Your task to perform on an android device: set the timer Image 0: 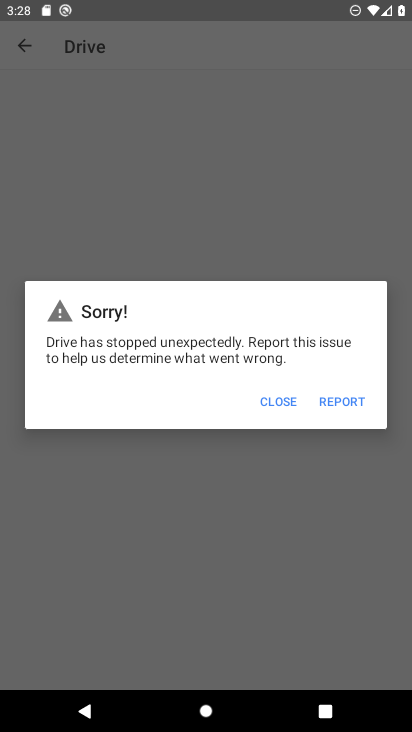
Step 0: click (175, 503)
Your task to perform on an android device: set the timer Image 1: 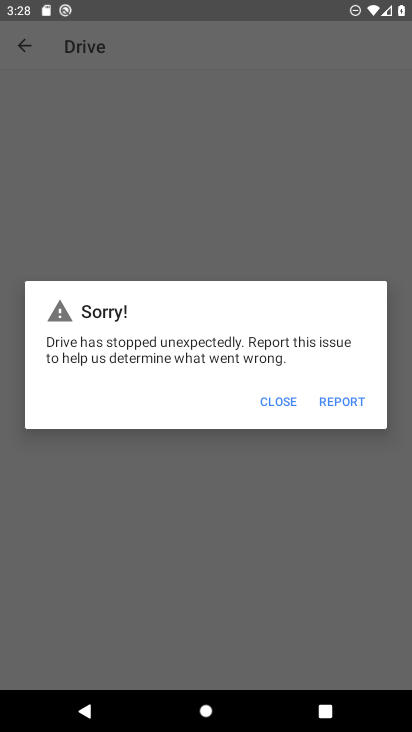
Step 1: press home button
Your task to perform on an android device: set the timer Image 2: 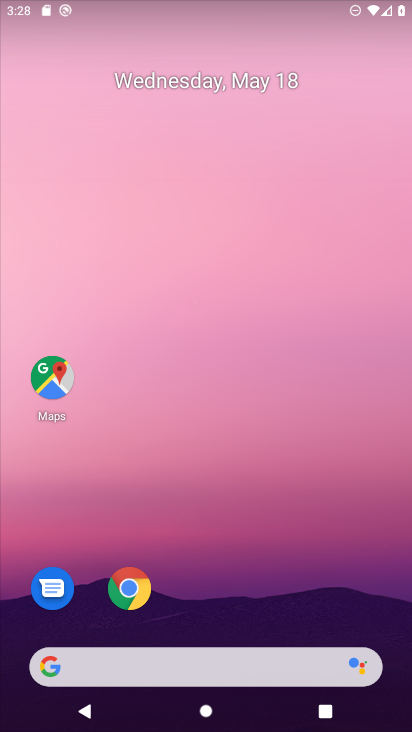
Step 2: drag from (259, 587) to (278, 121)
Your task to perform on an android device: set the timer Image 3: 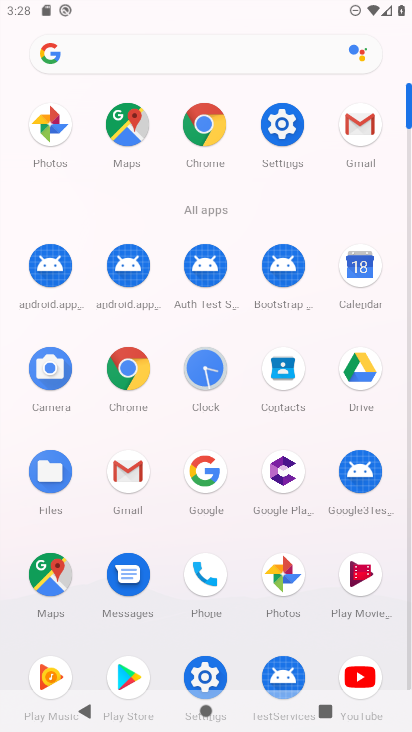
Step 3: click (287, 129)
Your task to perform on an android device: set the timer Image 4: 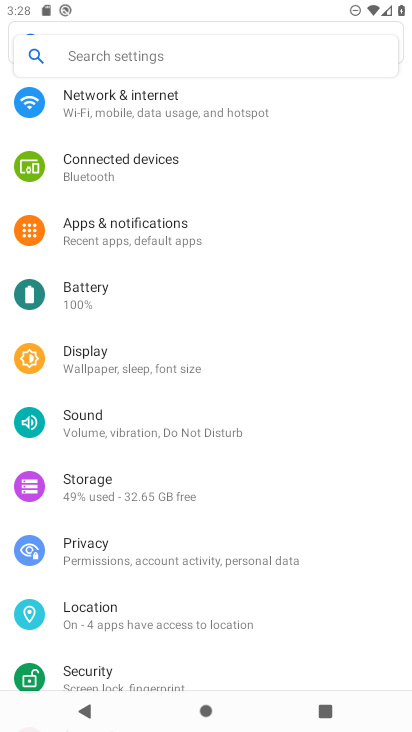
Step 4: drag from (40, 601) to (110, 310)
Your task to perform on an android device: set the timer Image 5: 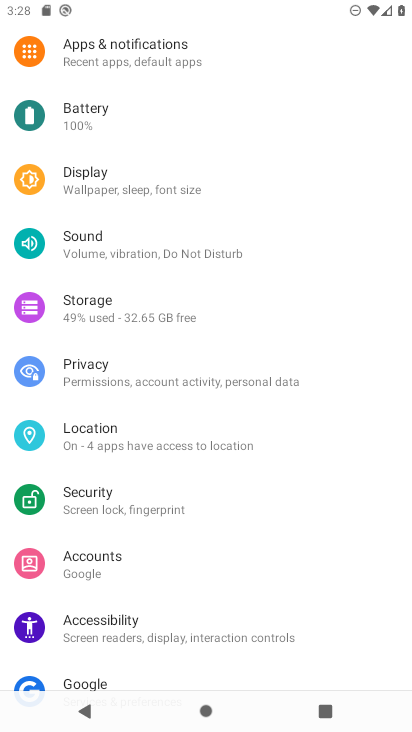
Step 5: press home button
Your task to perform on an android device: set the timer Image 6: 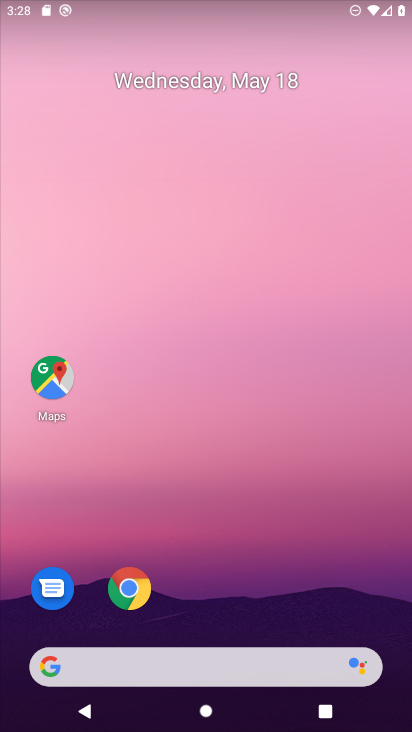
Step 6: drag from (235, 623) to (238, 116)
Your task to perform on an android device: set the timer Image 7: 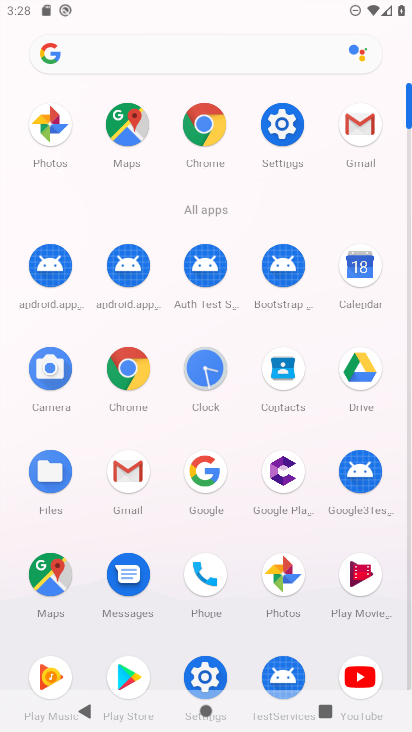
Step 7: click (225, 361)
Your task to perform on an android device: set the timer Image 8: 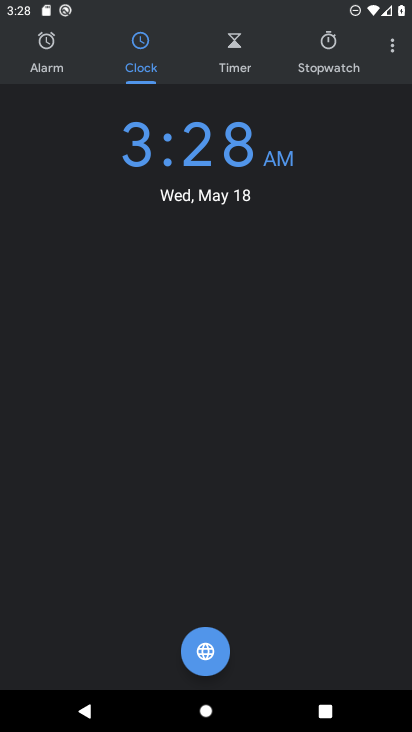
Step 8: click (209, 58)
Your task to perform on an android device: set the timer Image 9: 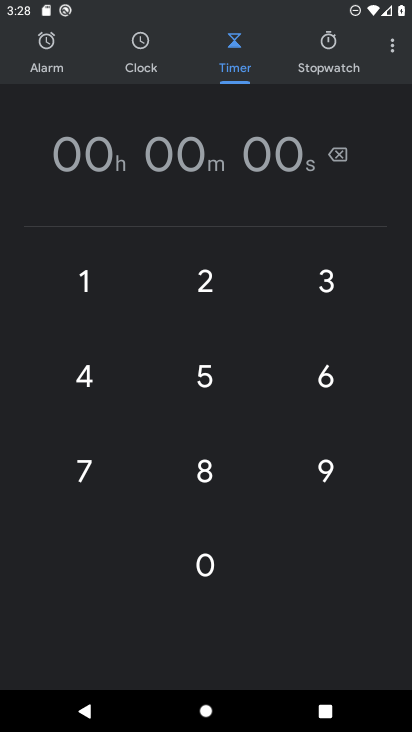
Step 9: task complete